Your task to perform on an android device: change text size in settings app Image 0: 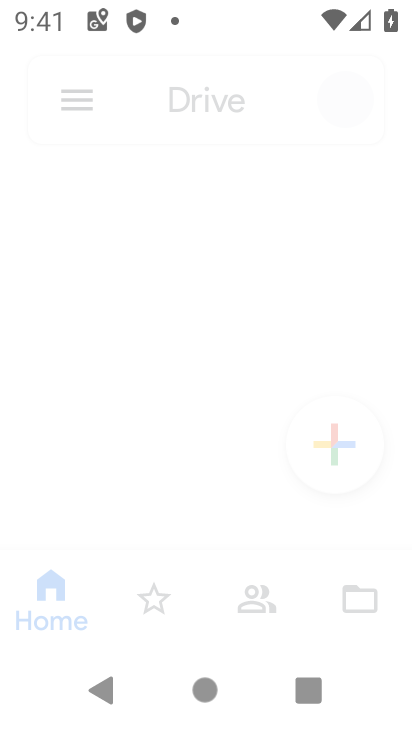
Step 0: click (256, 442)
Your task to perform on an android device: change text size in settings app Image 1: 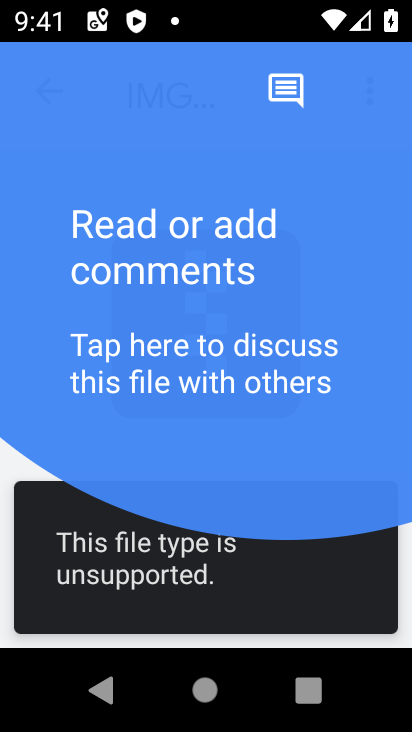
Step 1: click (15, 479)
Your task to perform on an android device: change text size in settings app Image 2: 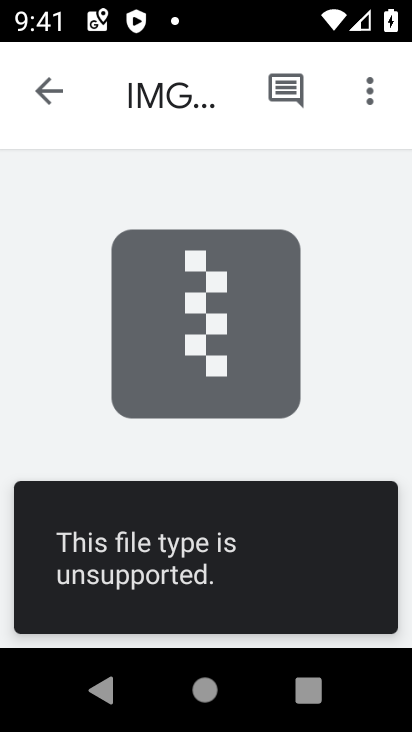
Step 2: click (51, 76)
Your task to perform on an android device: change text size in settings app Image 3: 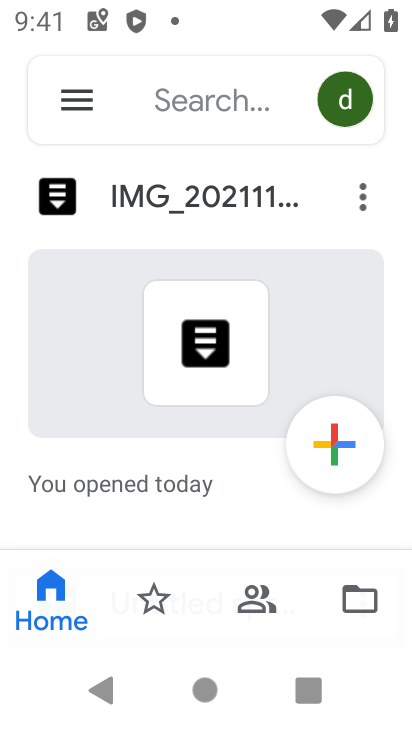
Step 3: press home button
Your task to perform on an android device: change text size in settings app Image 4: 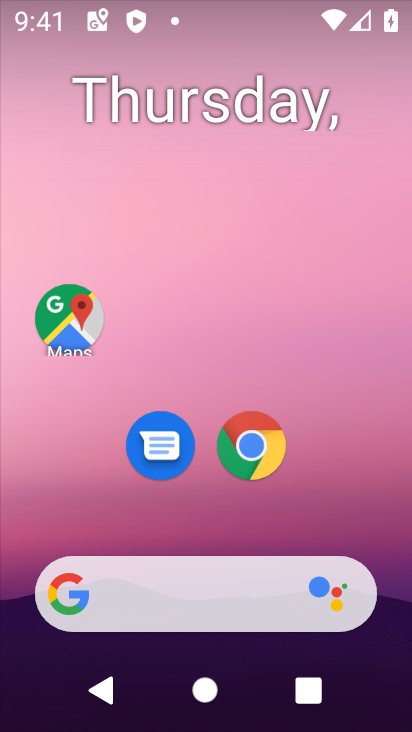
Step 4: drag from (235, 549) to (245, 133)
Your task to perform on an android device: change text size in settings app Image 5: 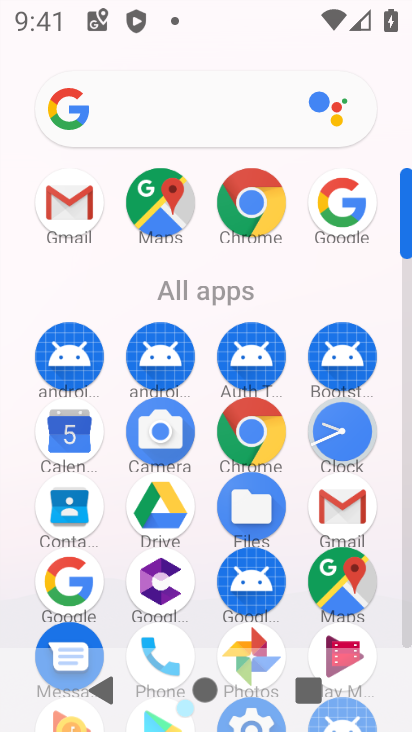
Step 5: drag from (195, 565) to (248, 206)
Your task to perform on an android device: change text size in settings app Image 6: 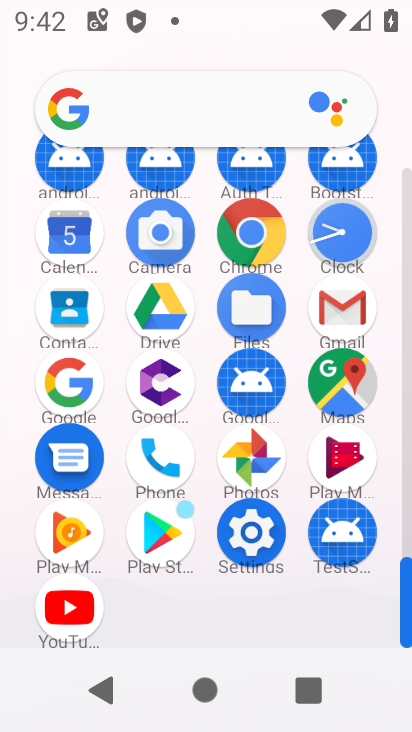
Step 6: click (251, 553)
Your task to perform on an android device: change text size in settings app Image 7: 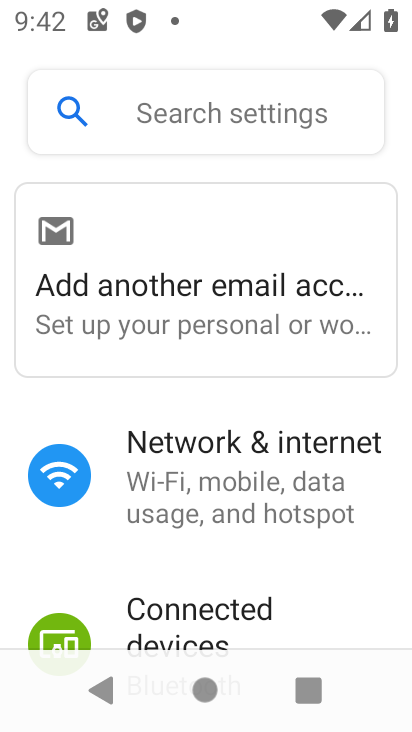
Step 7: drag from (227, 625) to (245, 326)
Your task to perform on an android device: change text size in settings app Image 8: 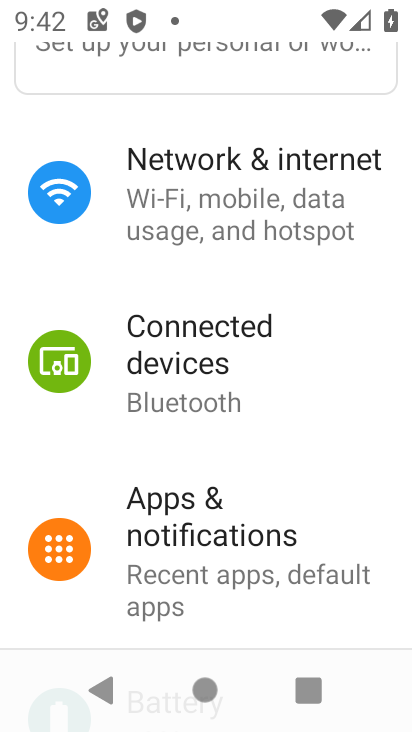
Step 8: drag from (256, 638) to (265, 357)
Your task to perform on an android device: change text size in settings app Image 9: 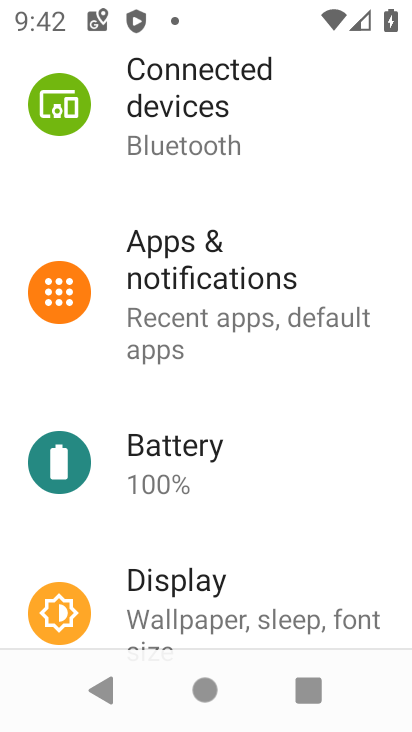
Step 9: drag from (238, 610) to (285, 317)
Your task to perform on an android device: change text size in settings app Image 10: 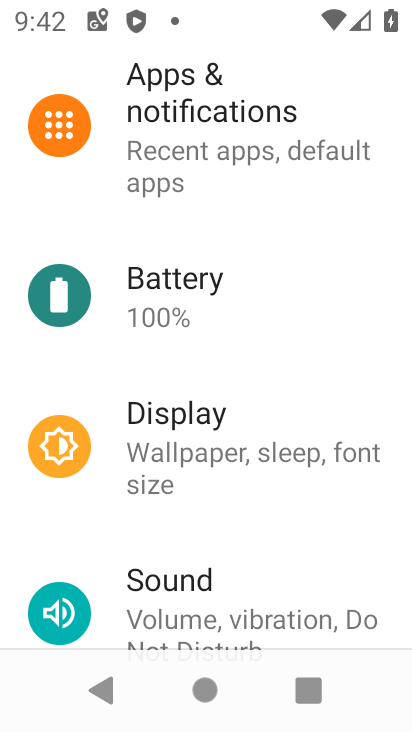
Step 10: drag from (269, 622) to (269, 362)
Your task to perform on an android device: change text size in settings app Image 11: 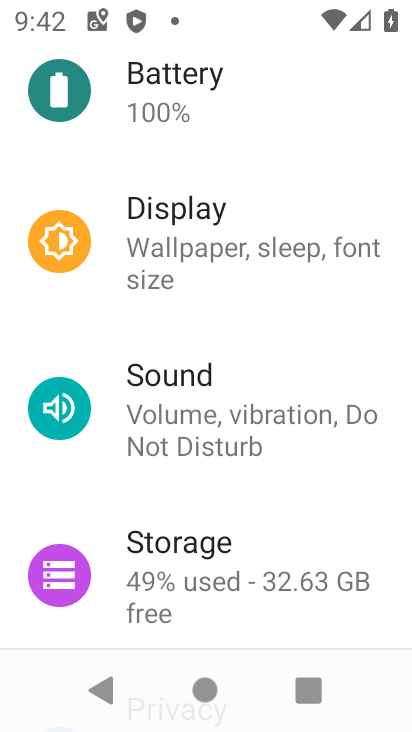
Step 11: drag from (217, 623) to (259, 332)
Your task to perform on an android device: change text size in settings app Image 12: 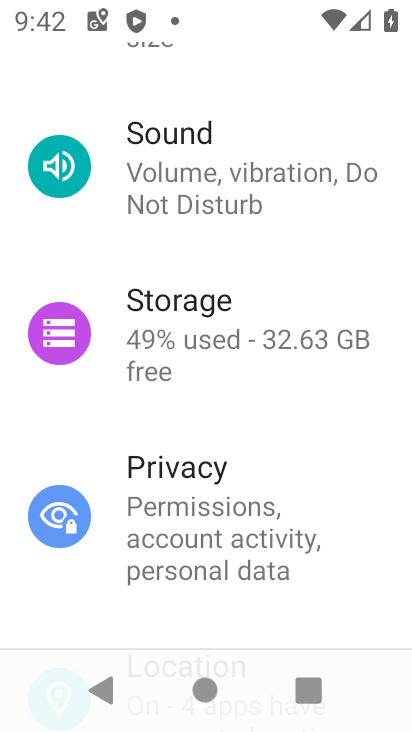
Step 12: drag from (232, 619) to (267, 292)
Your task to perform on an android device: change text size in settings app Image 13: 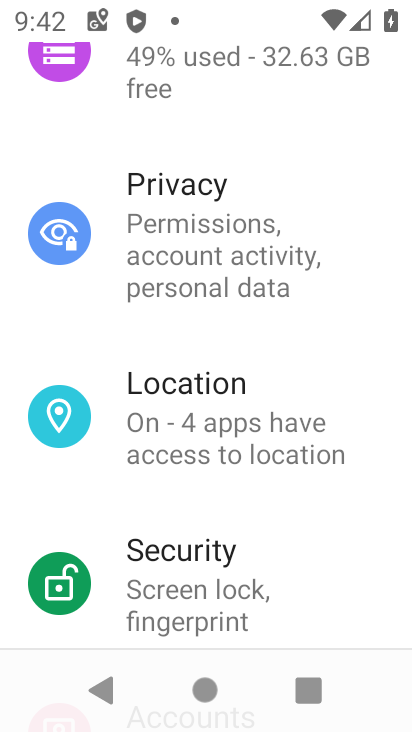
Step 13: drag from (225, 629) to (278, 352)
Your task to perform on an android device: change text size in settings app Image 14: 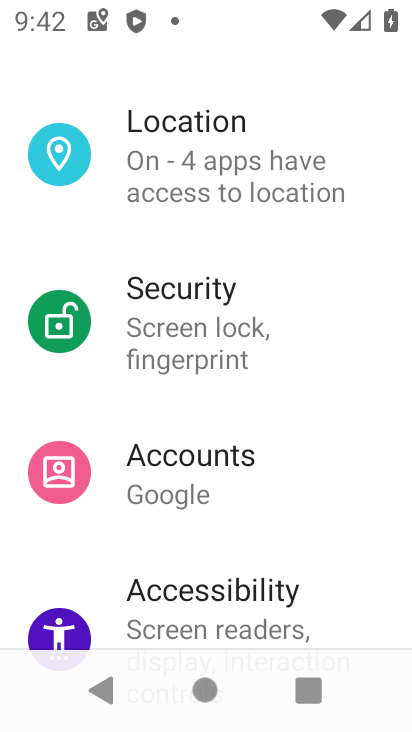
Step 14: click (206, 618)
Your task to perform on an android device: change text size in settings app Image 15: 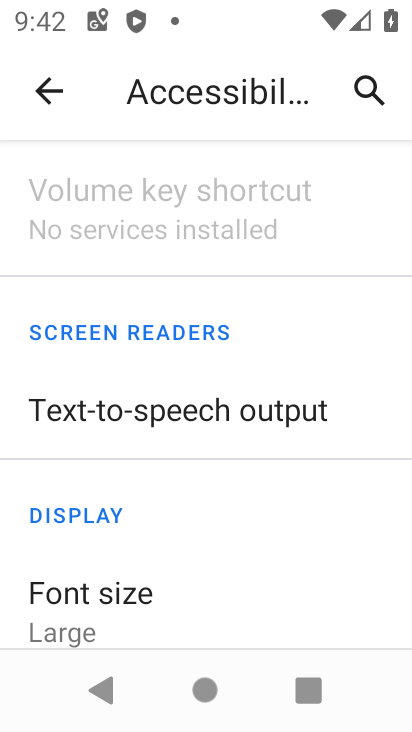
Step 15: click (104, 608)
Your task to perform on an android device: change text size in settings app Image 16: 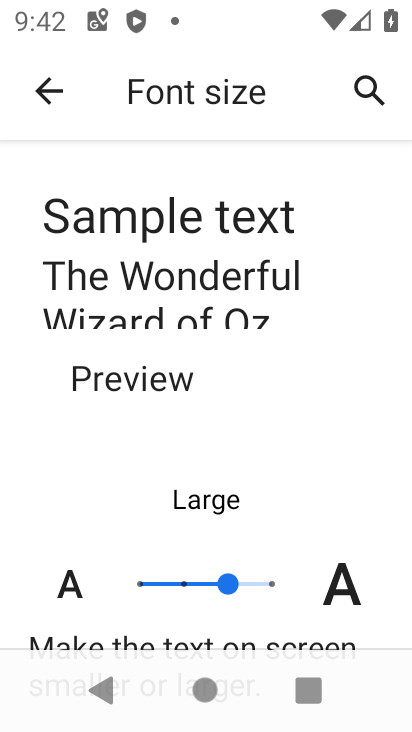
Step 16: click (191, 584)
Your task to perform on an android device: change text size in settings app Image 17: 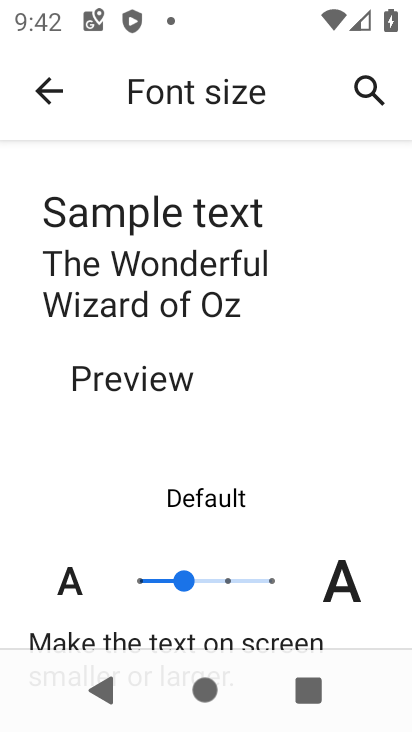
Step 17: task complete